Your task to perform on an android device: Open Chrome and go to settings Image 0: 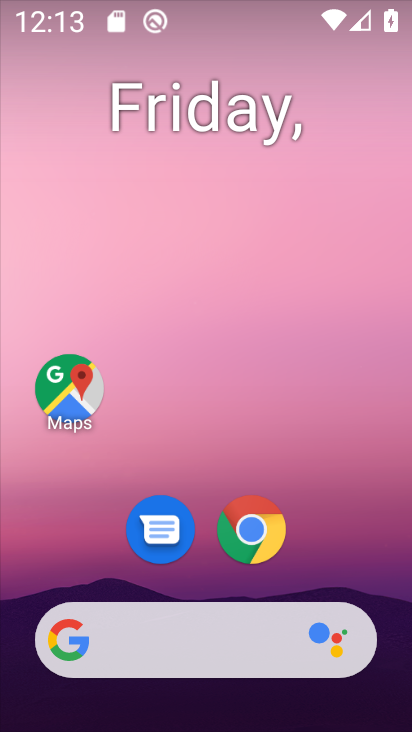
Step 0: click (265, 526)
Your task to perform on an android device: Open Chrome and go to settings Image 1: 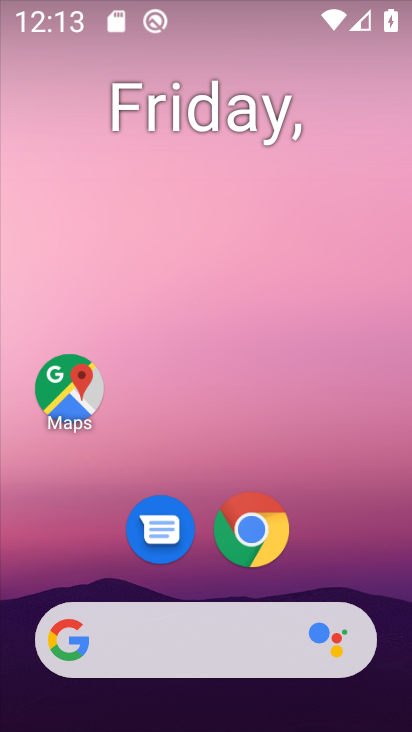
Step 1: click (254, 538)
Your task to perform on an android device: Open Chrome and go to settings Image 2: 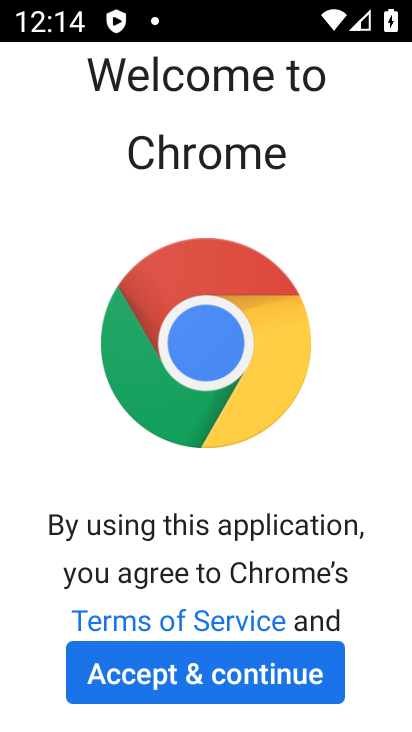
Step 2: click (133, 674)
Your task to perform on an android device: Open Chrome and go to settings Image 3: 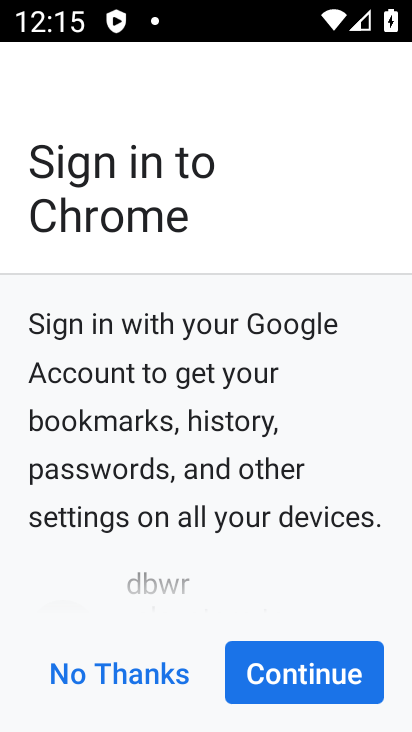
Step 3: click (285, 681)
Your task to perform on an android device: Open Chrome and go to settings Image 4: 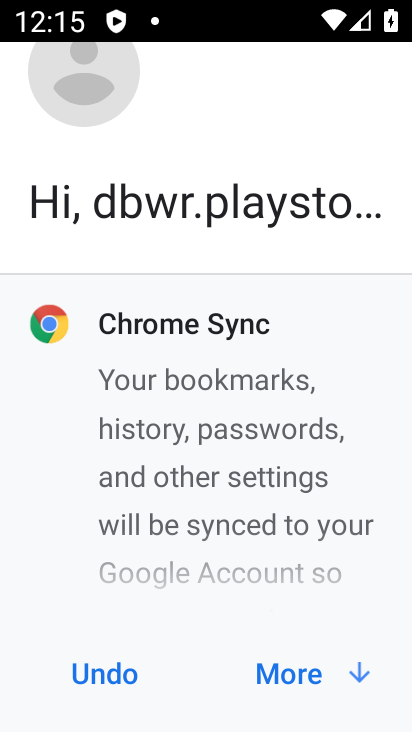
Step 4: click (289, 675)
Your task to perform on an android device: Open Chrome and go to settings Image 5: 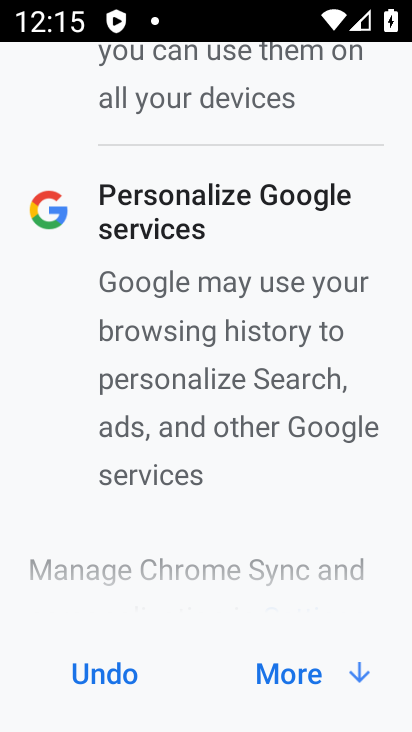
Step 5: click (289, 675)
Your task to perform on an android device: Open Chrome and go to settings Image 6: 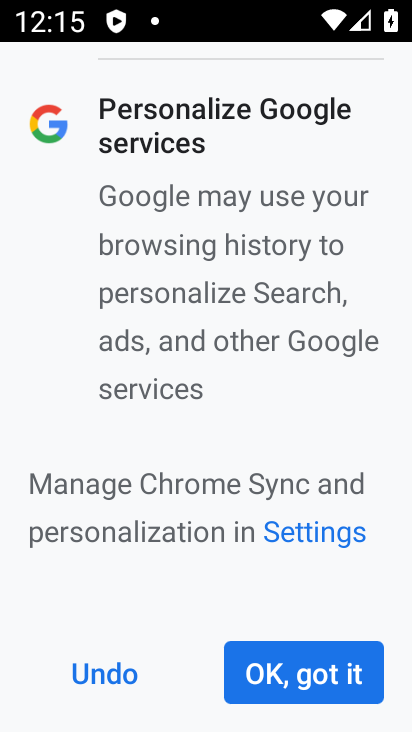
Step 6: click (289, 675)
Your task to perform on an android device: Open Chrome and go to settings Image 7: 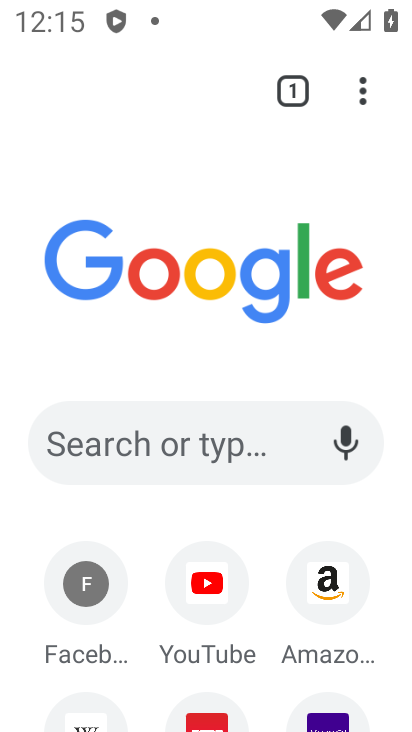
Step 7: click (365, 99)
Your task to perform on an android device: Open Chrome and go to settings Image 8: 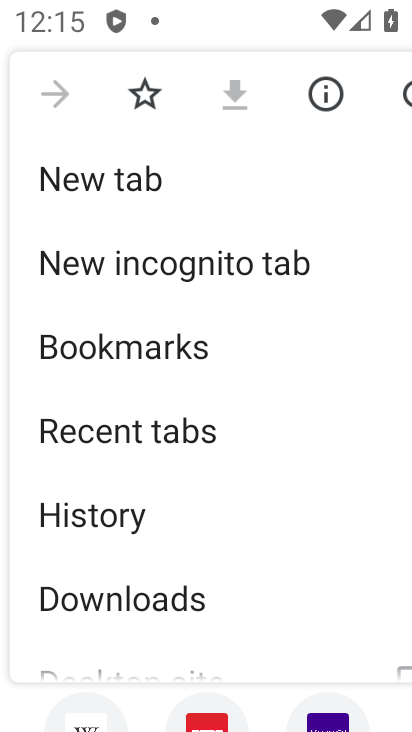
Step 8: drag from (173, 638) to (249, 217)
Your task to perform on an android device: Open Chrome and go to settings Image 9: 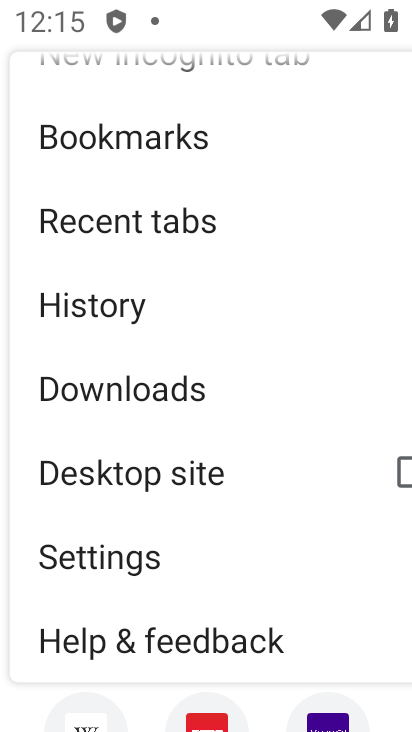
Step 9: click (89, 571)
Your task to perform on an android device: Open Chrome and go to settings Image 10: 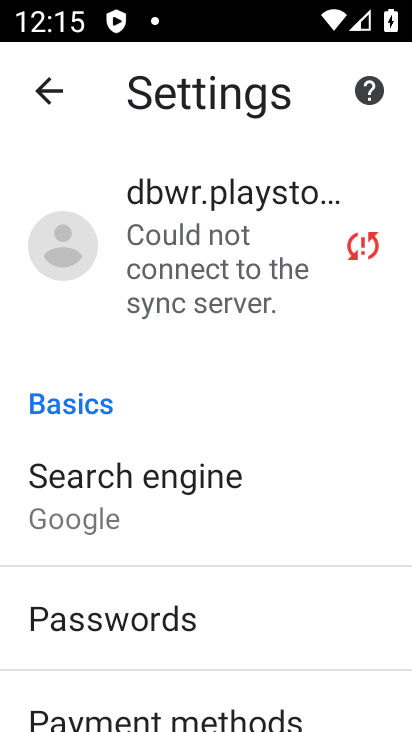
Step 10: task complete